Your task to perform on an android device: set the stopwatch Image 0: 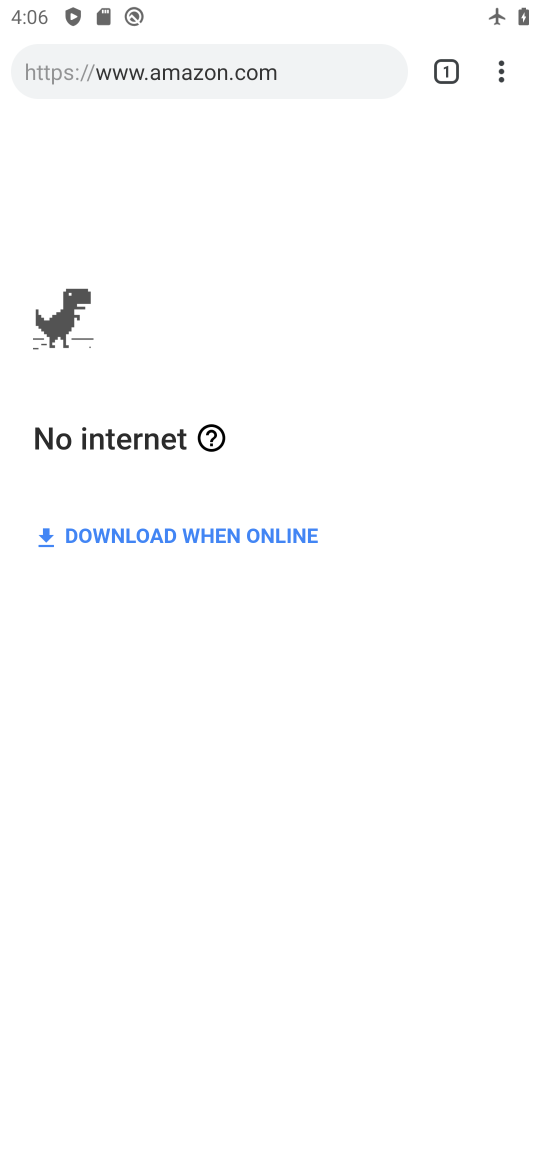
Step 0: press home button
Your task to perform on an android device: set the stopwatch Image 1: 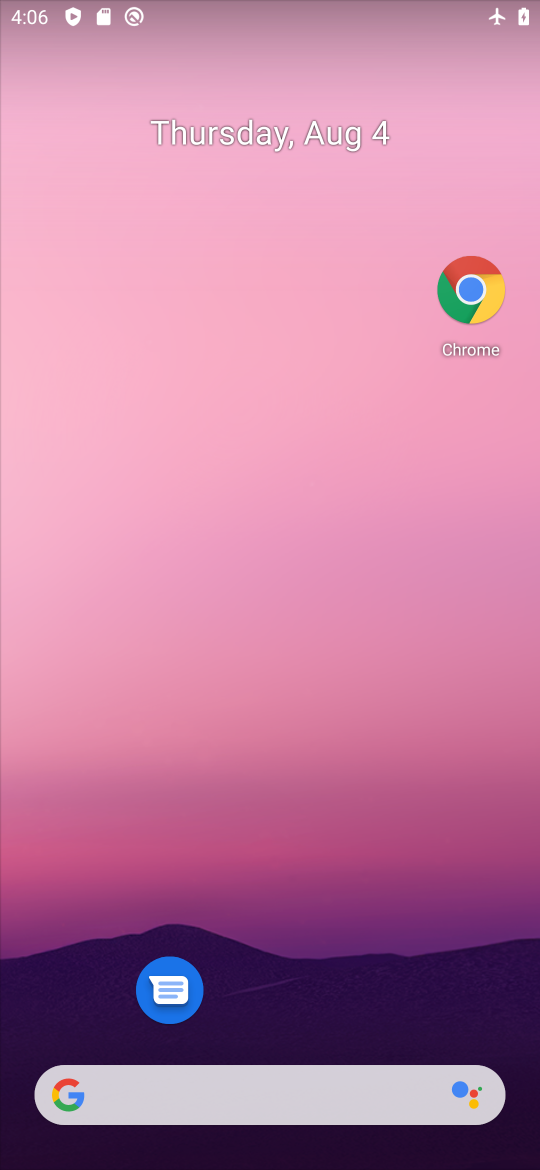
Step 1: drag from (344, 1035) to (212, 111)
Your task to perform on an android device: set the stopwatch Image 2: 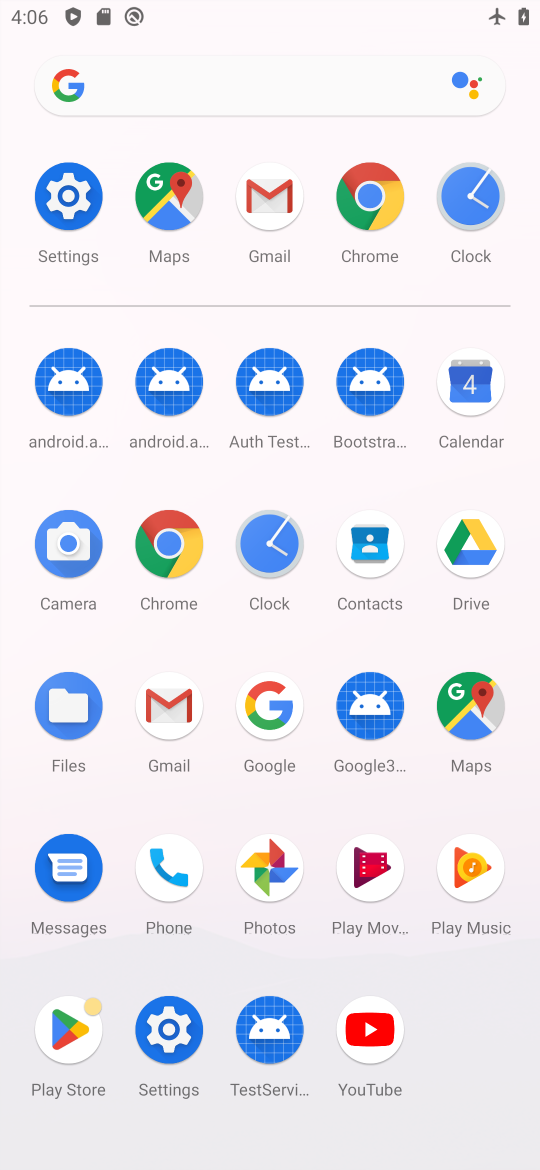
Step 2: click (476, 195)
Your task to perform on an android device: set the stopwatch Image 3: 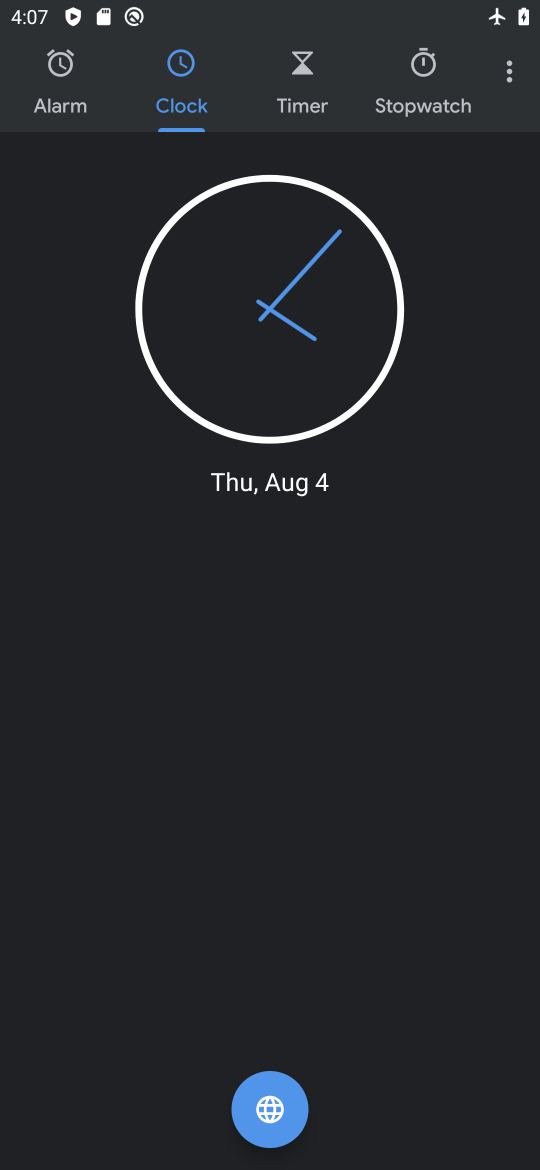
Step 3: click (451, 93)
Your task to perform on an android device: set the stopwatch Image 4: 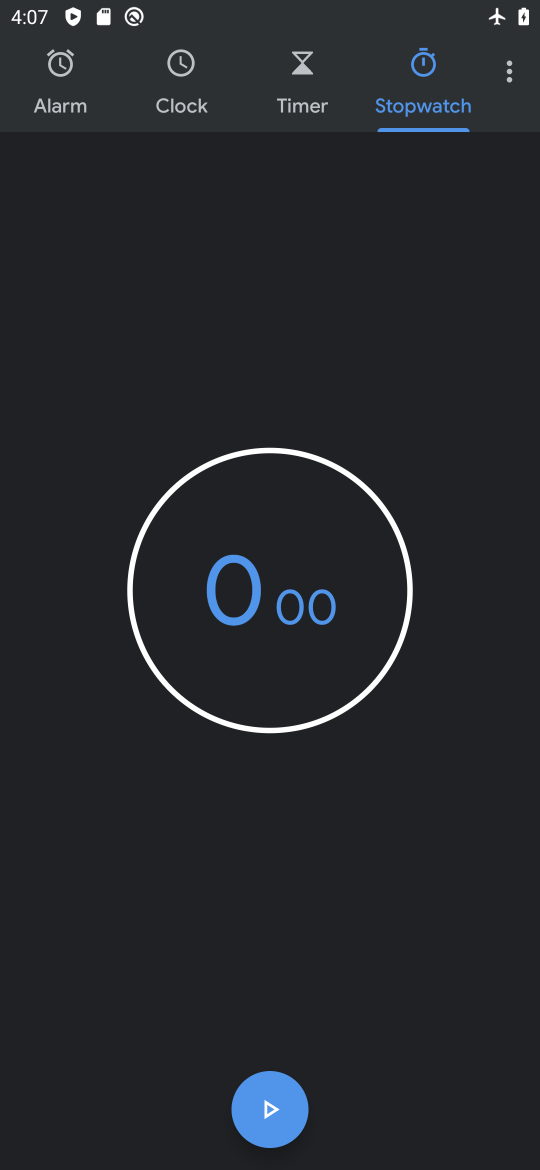
Step 4: task complete